Your task to perform on an android device: change your default location settings in chrome Image 0: 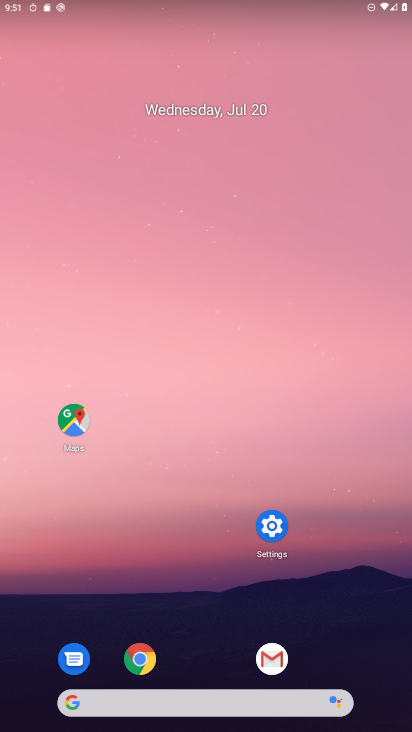
Step 0: click (155, 666)
Your task to perform on an android device: change your default location settings in chrome Image 1: 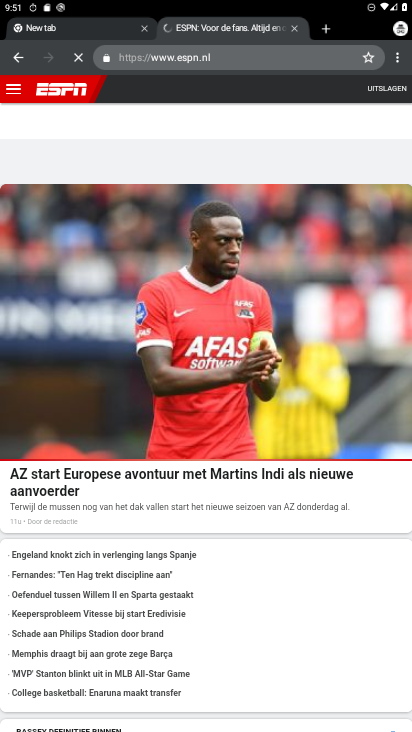
Step 1: click (393, 61)
Your task to perform on an android device: change your default location settings in chrome Image 2: 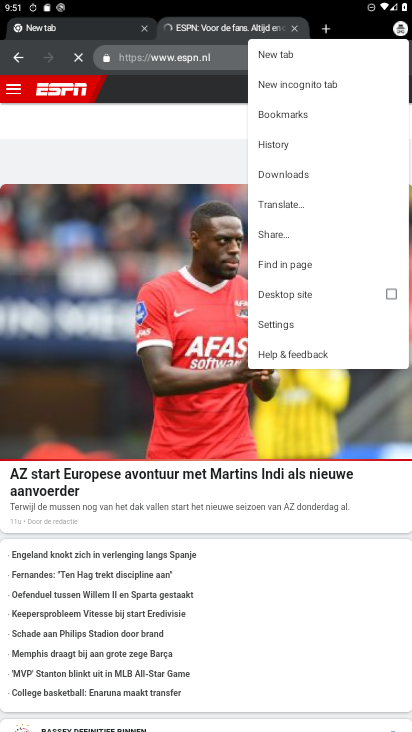
Step 2: click (275, 323)
Your task to perform on an android device: change your default location settings in chrome Image 3: 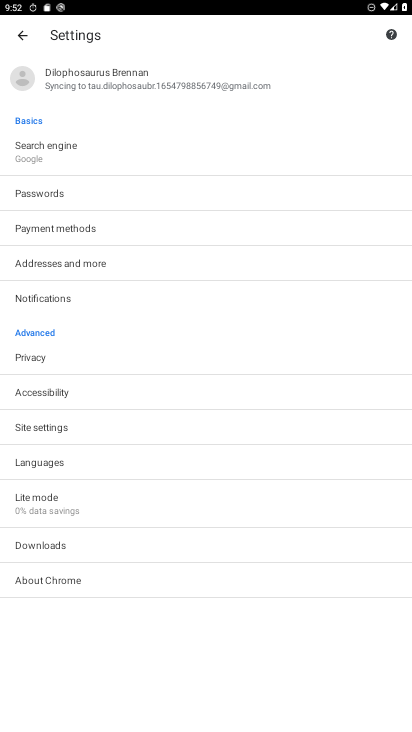
Step 3: click (37, 429)
Your task to perform on an android device: change your default location settings in chrome Image 4: 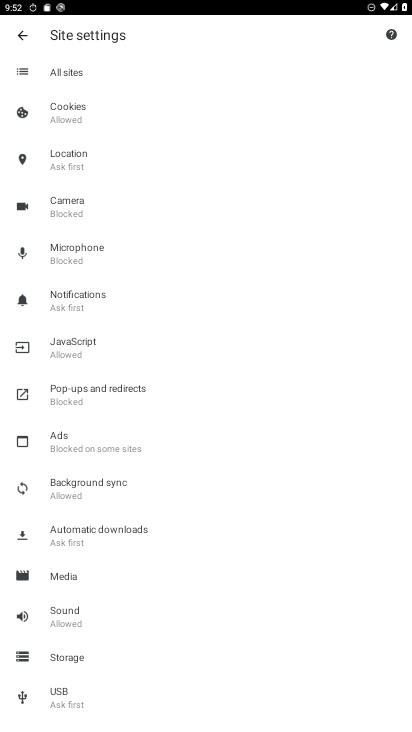
Step 4: click (82, 168)
Your task to perform on an android device: change your default location settings in chrome Image 5: 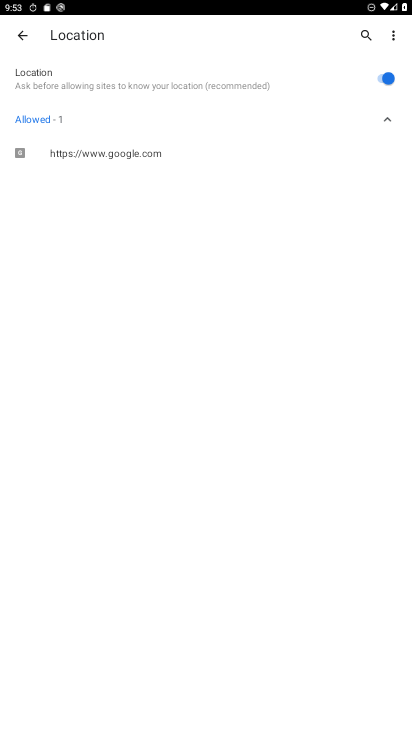
Step 5: task complete